Your task to perform on an android device: Open Google Chrome and click the shortcut for Amazon.com Image 0: 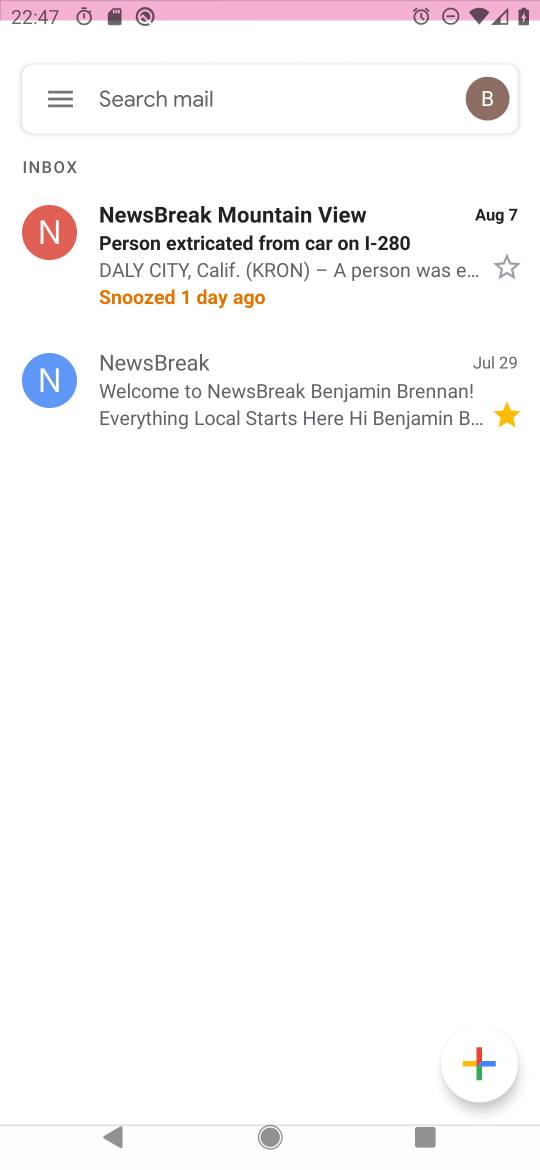
Step 0: click (377, 388)
Your task to perform on an android device: Open Google Chrome and click the shortcut for Amazon.com Image 1: 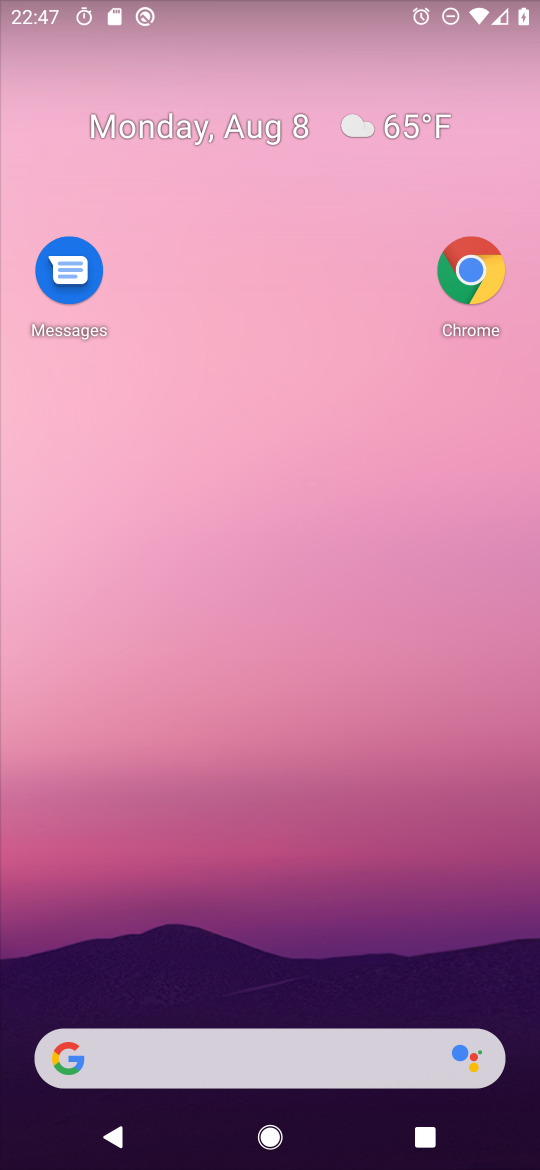
Step 1: click (454, 266)
Your task to perform on an android device: Open Google Chrome and click the shortcut for Amazon.com Image 2: 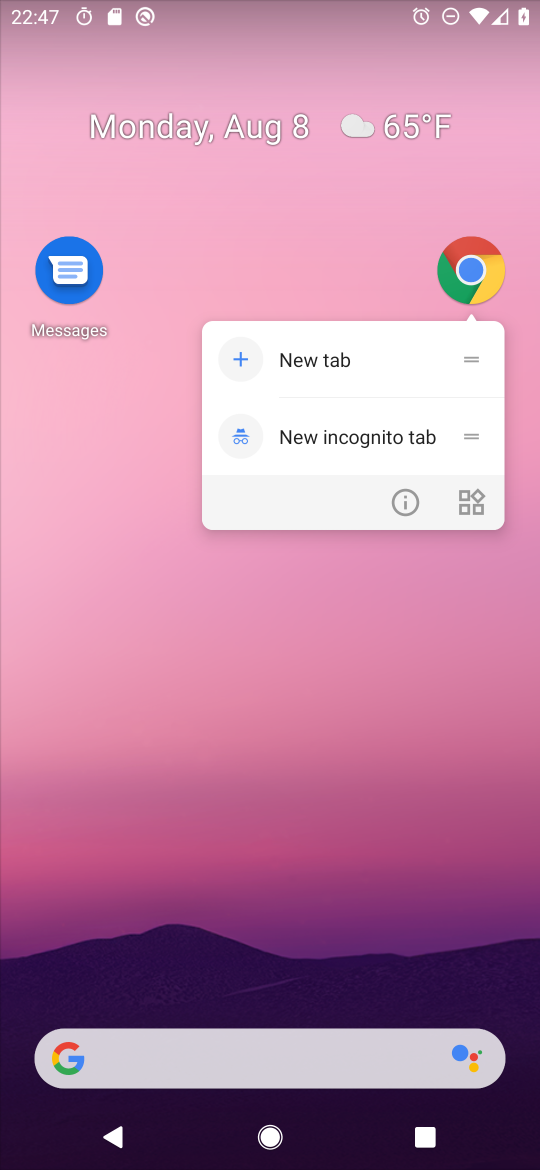
Step 2: click (391, 497)
Your task to perform on an android device: Open Google Chrome and click the shortcut for Amazon.com Image 3: 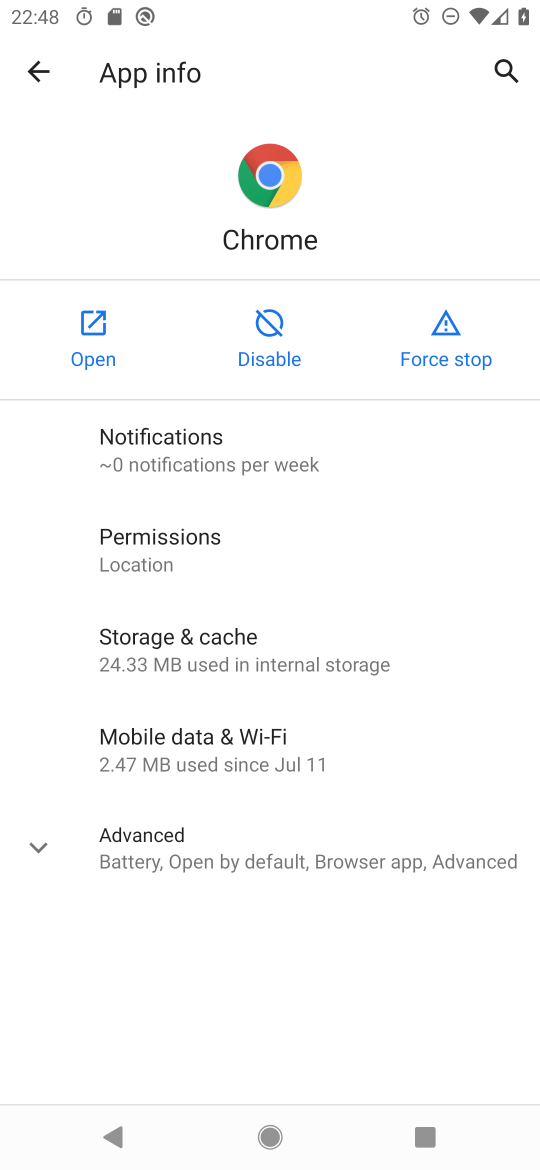
Step 3: click (57, 338)
Your task to perform on an android device: Open Google Chrome and click the shortcut for Amazon.com Image 4: 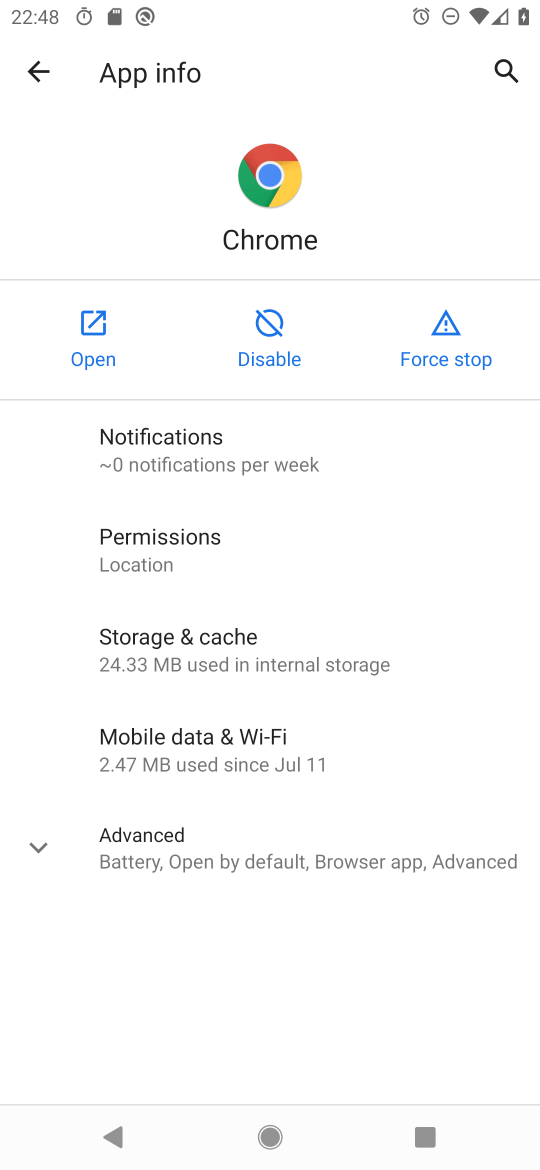
Step 4: click (60, 338)
Your task to perform on an android device: Open Google Chrome and click the shortcut for Amazon.com Image 5: 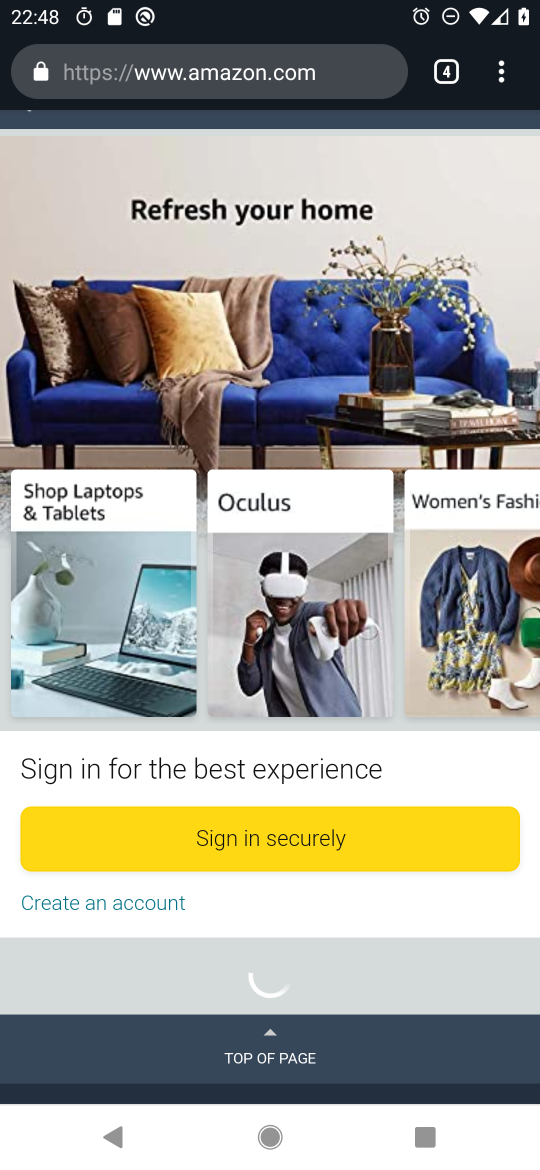
Step 5: click (72, 529)
Your task to perform on an android device: Open Google Chrome and click the shortcut for Amazon.com Image 6: 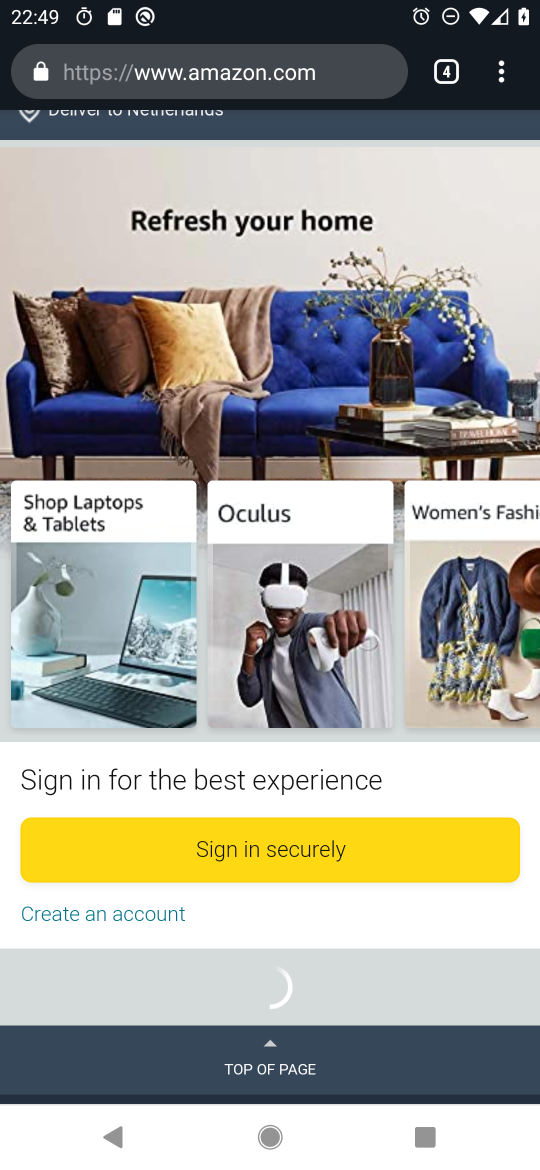
Step 6: task complete